Your task to perform on an android device: Add "asus rog" to the cart on walmart, then select checkout. Image 0: 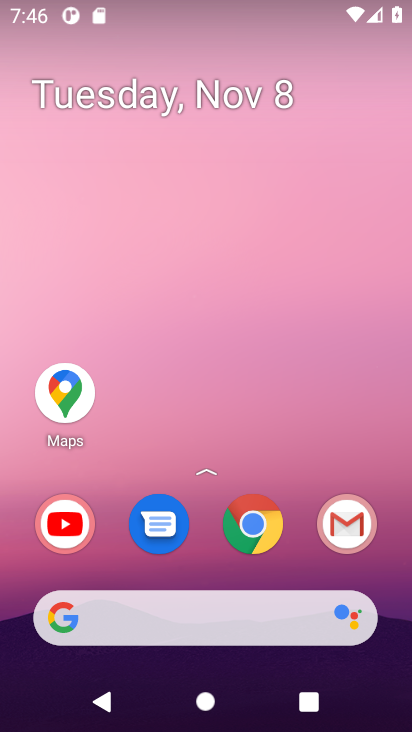
Step 0: click (261, 531)
Your task to perform on an android device: Add "asus rog" to the cart on walmart, then select checkout. Image 1: 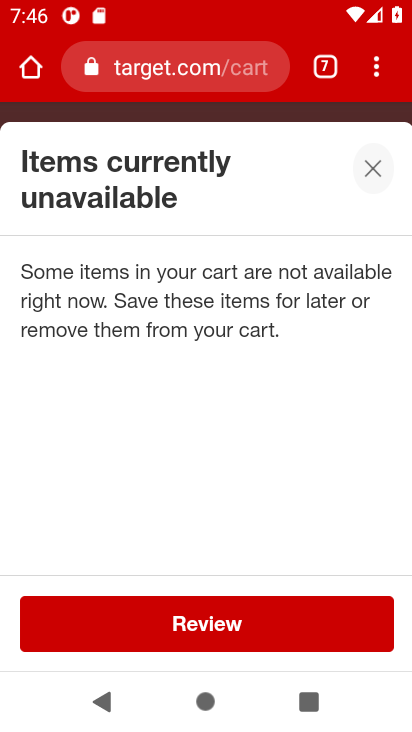
Step 1: click (166, 73)
Your task to perform on an android device: Add "asus rog" to the cart on walmart, then select checkout. Image 2: 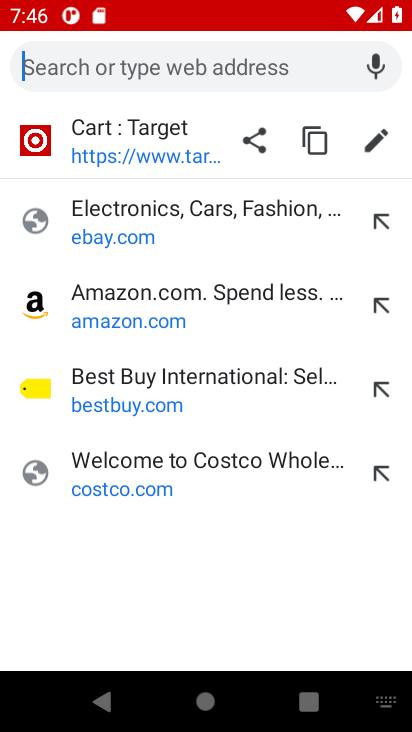
Step 2: type "walmart.com"
Your task to perform on an android device: Add "asus rog" to the cart on walmart, then select checkout. Image 3: 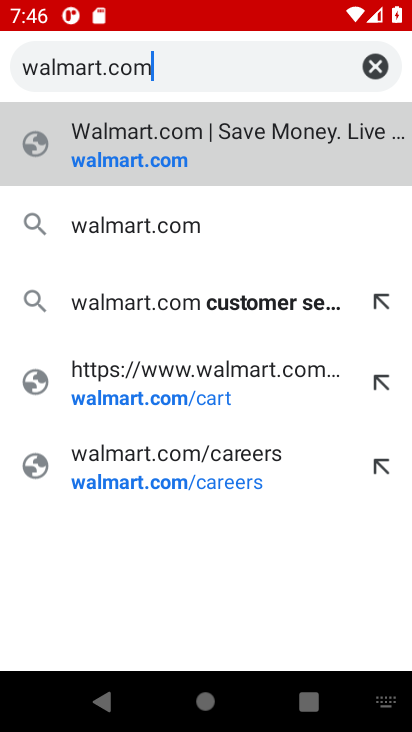
Step 3: click (152, 165)
Your task to perform on an android device: Add "asus rog" to the cart on walmart, then select checkout. Image 4: 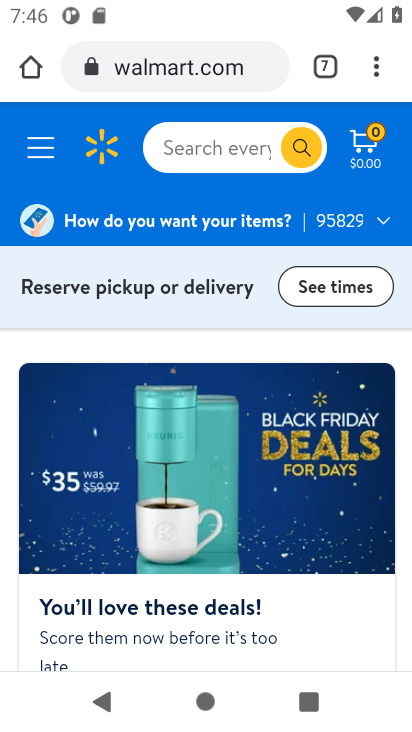
Step 4: click (181, 151)
Your task to perform on an android device: Add "asus rog" to the cart on walmart, then select checkout. Image 5: 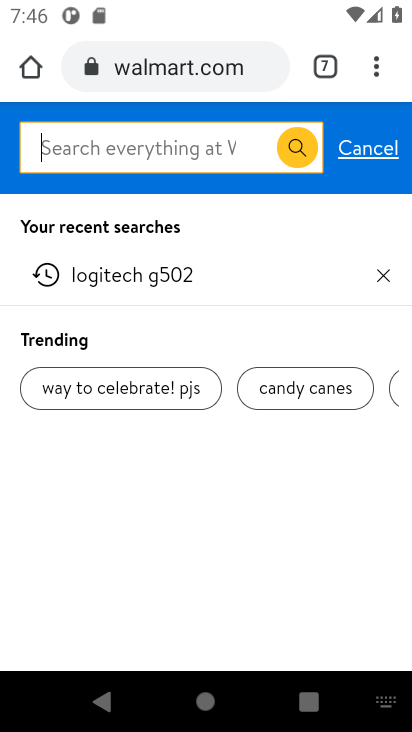
Step 5: type "asus rog"
Your task to perform on an android device: Add "asus rog" to the cart on walmart, then select checkout. Image 6: 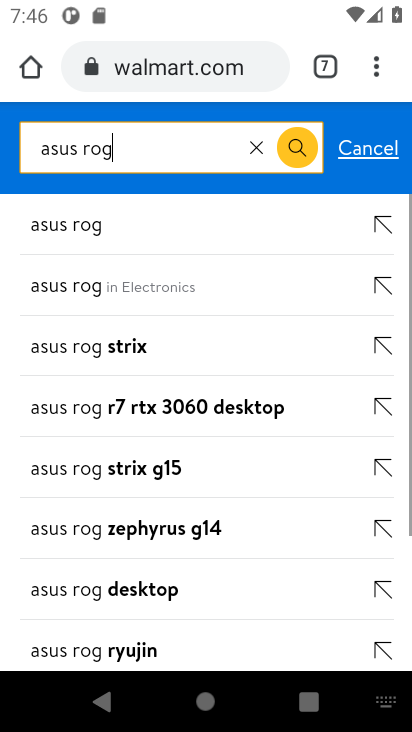
Step 6: click (77, 237)
Your task to perform on an android device: Add "asus rog" to the cart on walmart, then select checkout. Image 7: 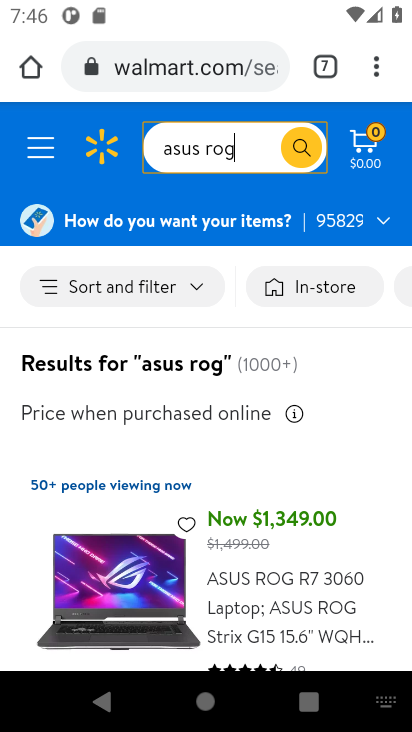
Step 7: drag from (150, 576) to (178, 394)
Your task to perform on an android device: Add "asus rog" to the cart on walmart, then select checkout. Image 8: 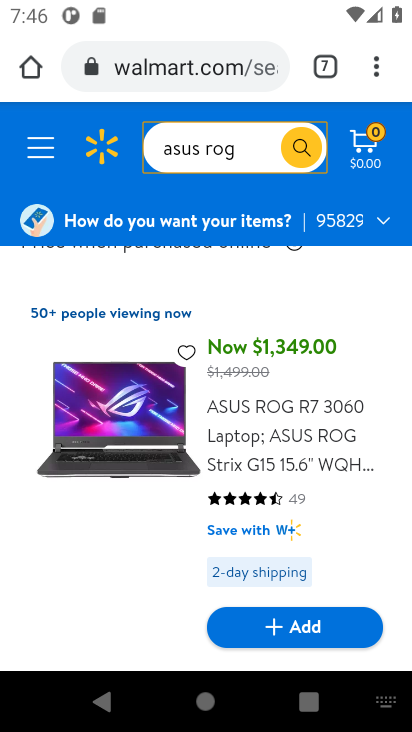
Step 8: click (276, 627)
Your task to perform on an android device: Add "asus rog" to the cart on walmart, then select checkout. Image 9: 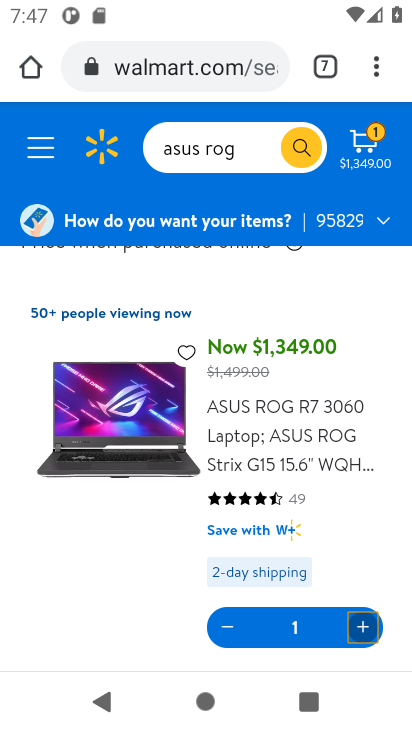
Step 9: click (367, 153)
Your task to perform on an android device: Add "asus rog" to the cart on walmart, then select checkout. Image 10: 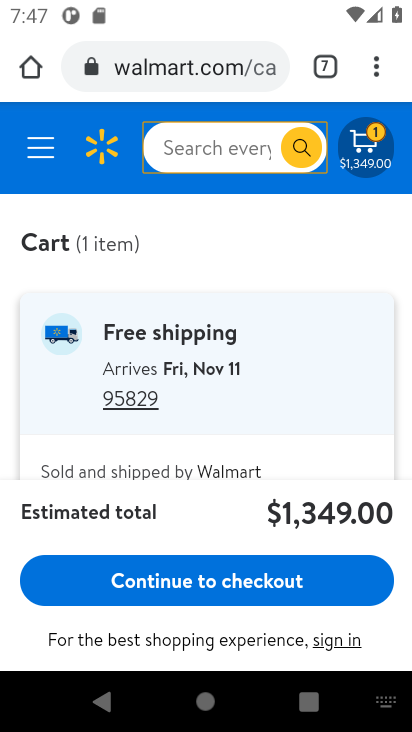
Step 10: click (203, 585)
Your task to perform on an android device: Add "asus rog" to the cart on walmart, then select checkout. Image 11: 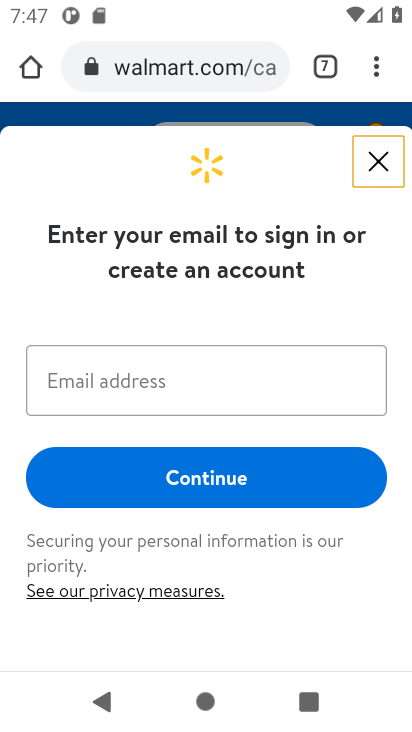
Step 11: task complete